Your task to perform on an android device: Check the news Image 0: 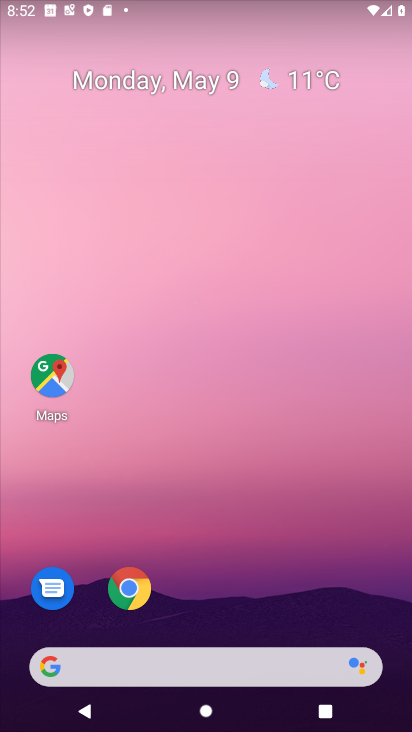
Step 0: click (52, 667)
Your task to perform on an android device: Check the news Image 1: 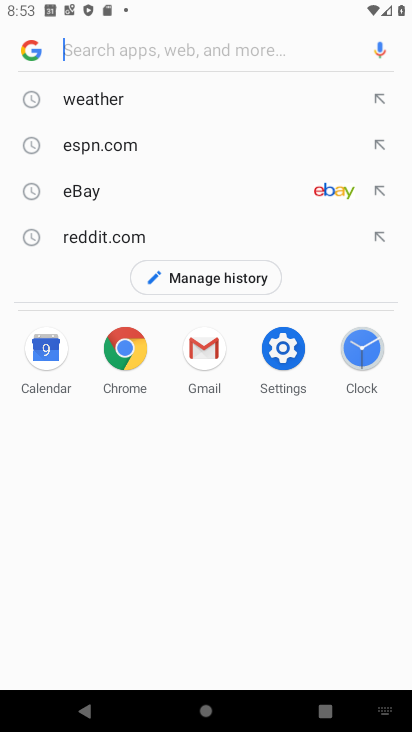
Step 1: type "news"
Your task to perform on an android device: Check the news Image 2: 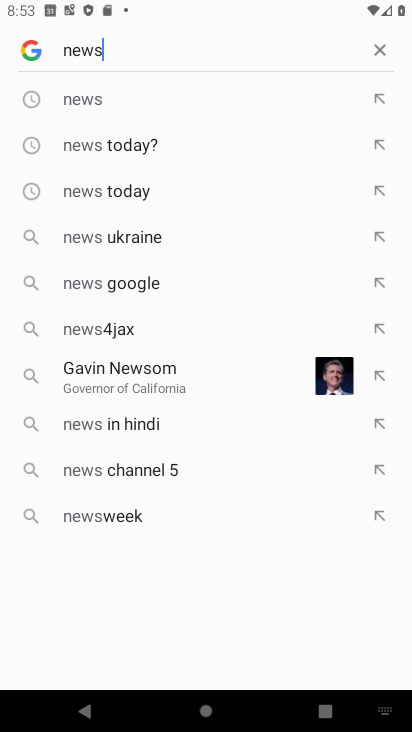
Step 2: click (92, 99)
Your task to perform on an android device: Check the news Image 3: 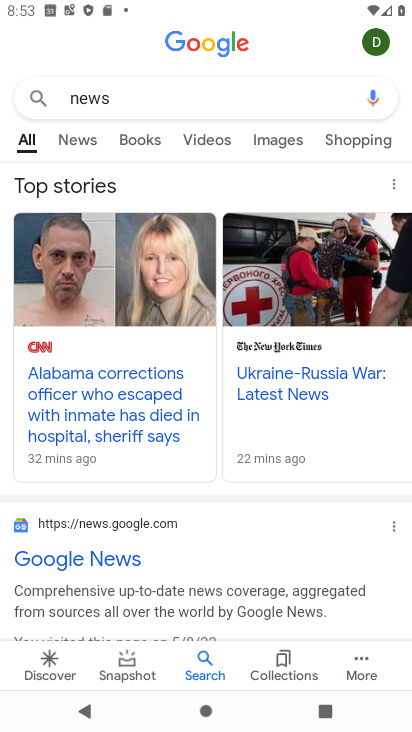
Step 3: task complete